Your task to perform on an android device: change timer sound Image 0: 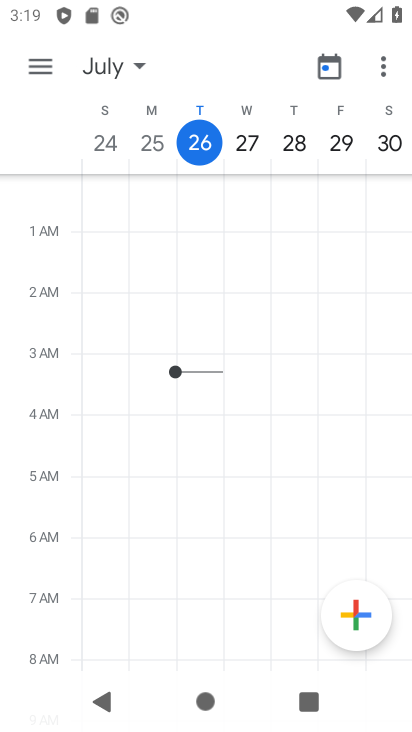
Step 0: press home button
Your task to perform on an android device: change timer sound Image 1: 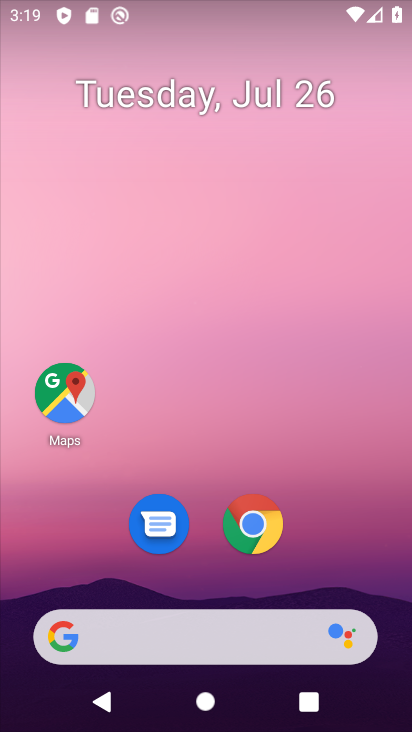
Step 1: drag from (359, 537) to (315, 24)
Your task to perform on an android device: change timer sound Image 2: 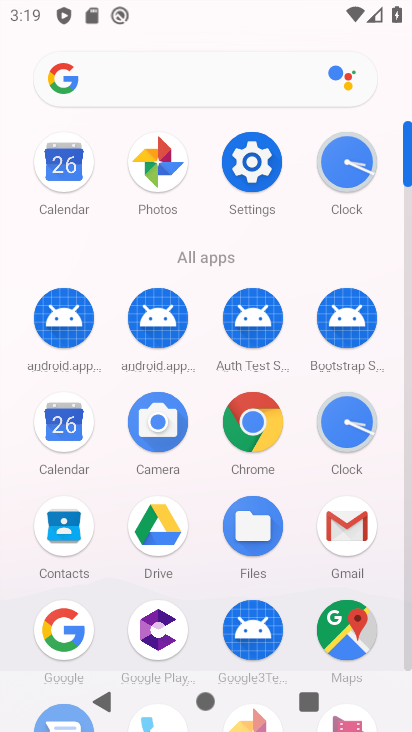
Step 2: click (349, 139)
Your task to perform on an android device: change timer sound Image 3: 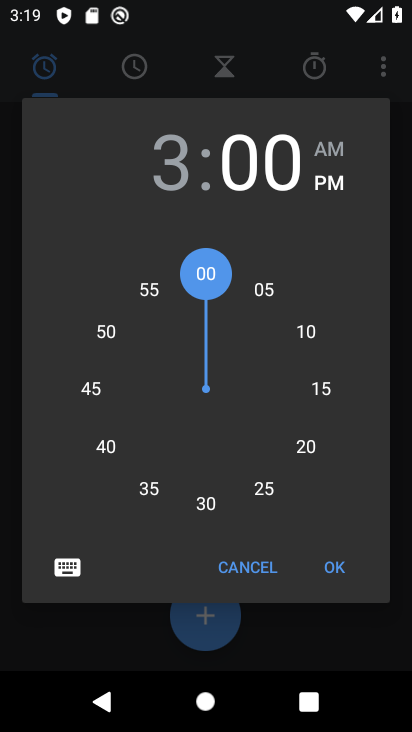
Step 3: click (336, 571)
Your task to perform on an android device: change timer sound Image 4: 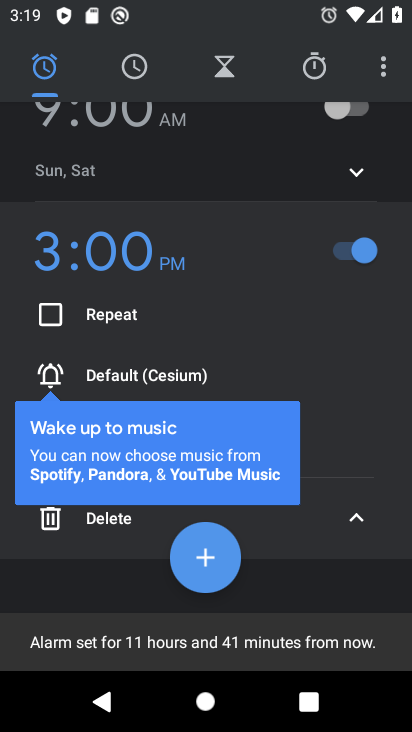
Step 4: click (379, 71)
Your task to perform on an android device: change timer sound Image 5: 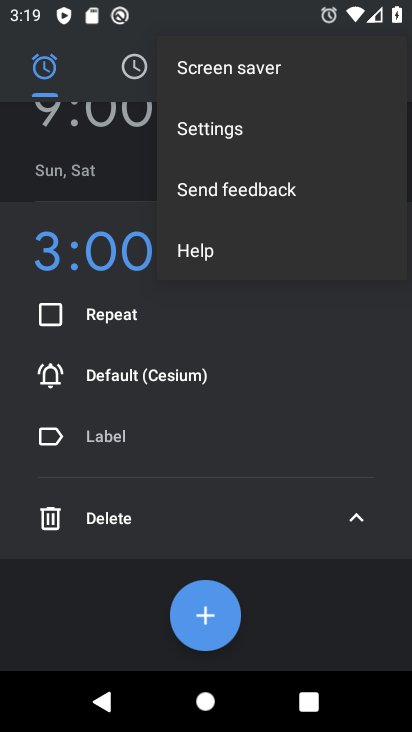
Step 5: click (241, 129)
Your task to perform on an android device: change timer sound Image 6: 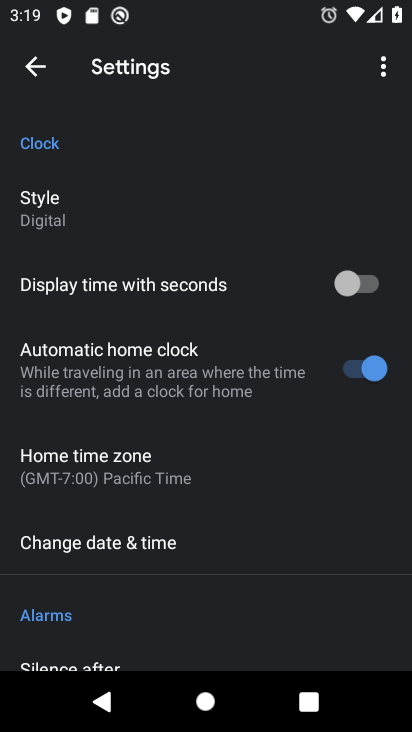
Step 6: drag from (206, 474) to (228, 0)
Your task to perform on an android device: change timer sound Image 7: 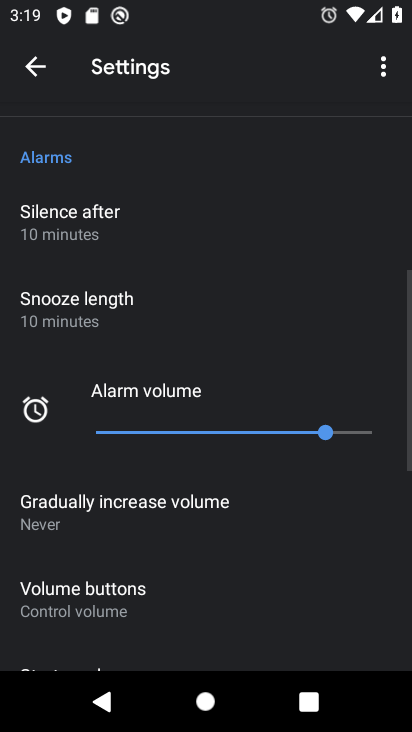
Step 7: drag from (173, 516) to (197, 0)
Your task to perform on an android device: change timer sound Image 8: 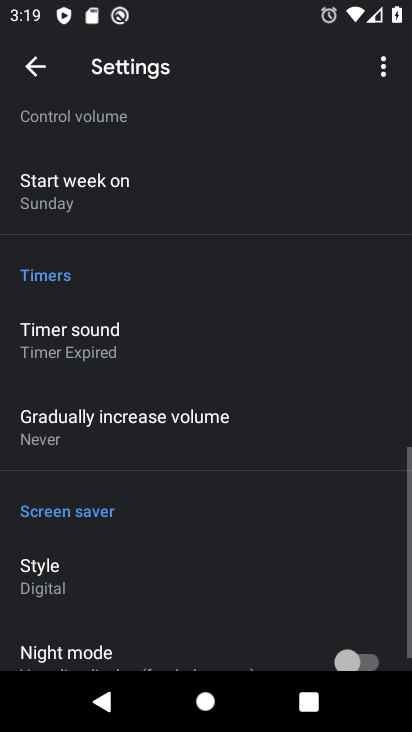
Step 8: click (88, 324)
Your task to perform on an android device: change timer sound Image 9: 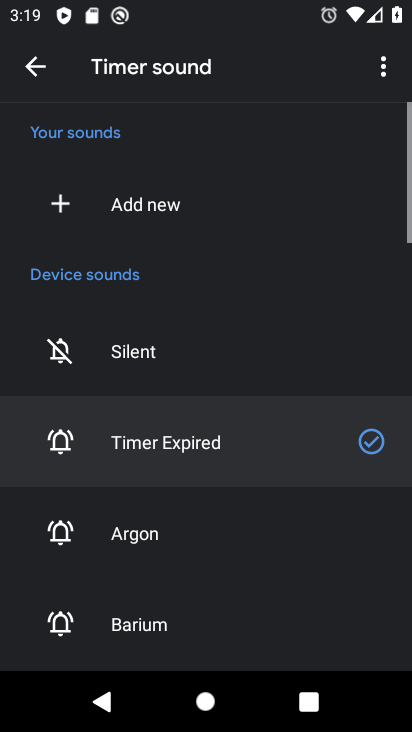
Step 9: click (103, 541)
Your task to perform on an android device: change timer sound Image 10: 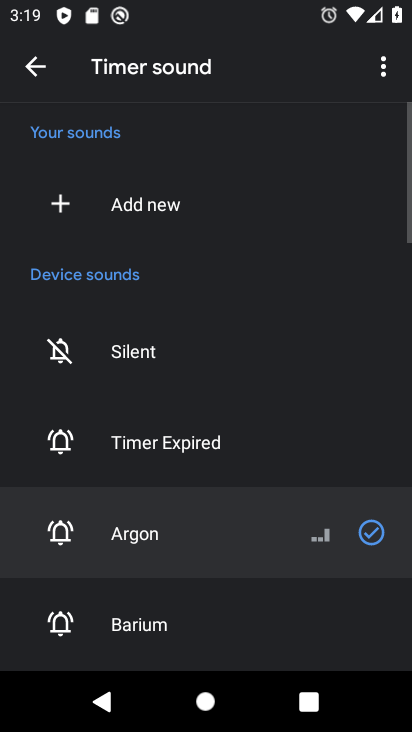
Step 10: task complete